Your task to perform on an android device: open app "Upside-Cash back on gas & food" (install if not already installed) and enter user name: "transatlantic@gmail.com" and password: "experiences" Image 0: 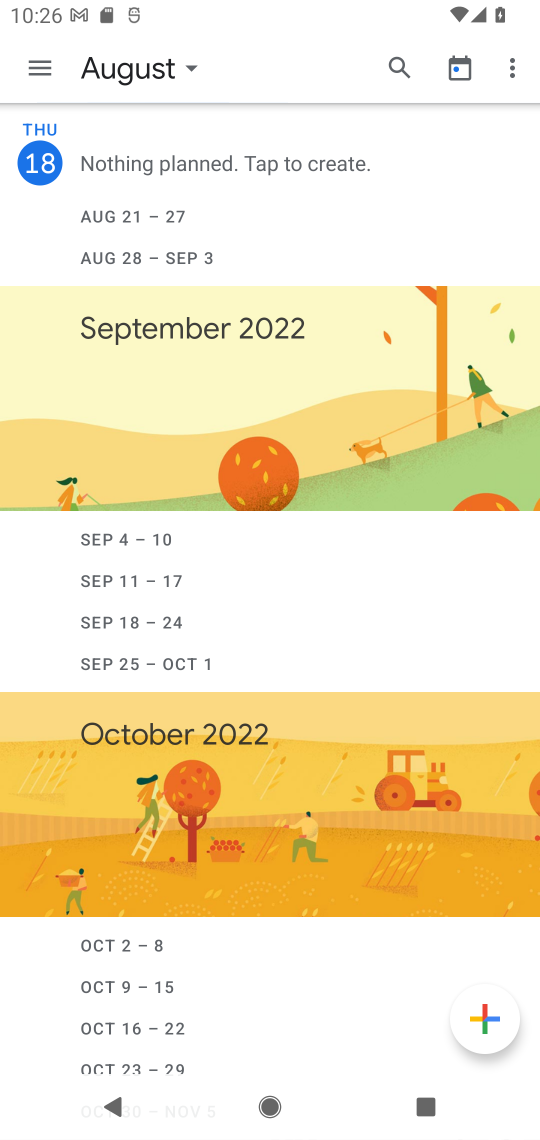
Step 0: press home button
Your task to perform on an android device: open app "Upside-Cash back on gas & food" (install if not already installed) and enter user name: "transatlantic@gmail.com" and password: "experiences" Image 1: 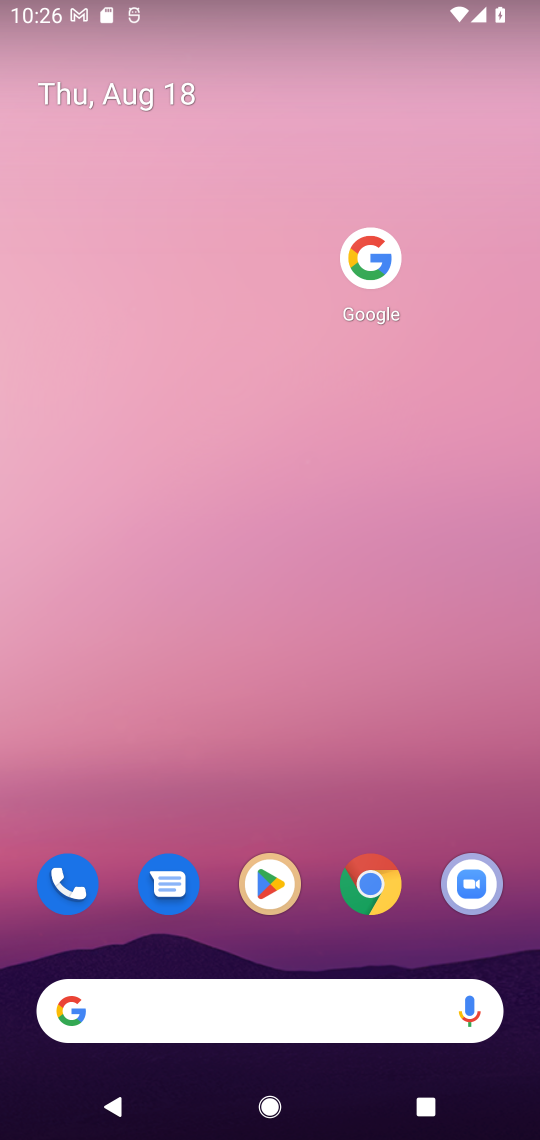
Step 1: click (291, 895)
Your task to perform on an android device: open app "Upside-Cash back on gas & food" (install if not already installed) and enter user name: "transatlantic@gmail.com" and password: "experiences" Image 2: 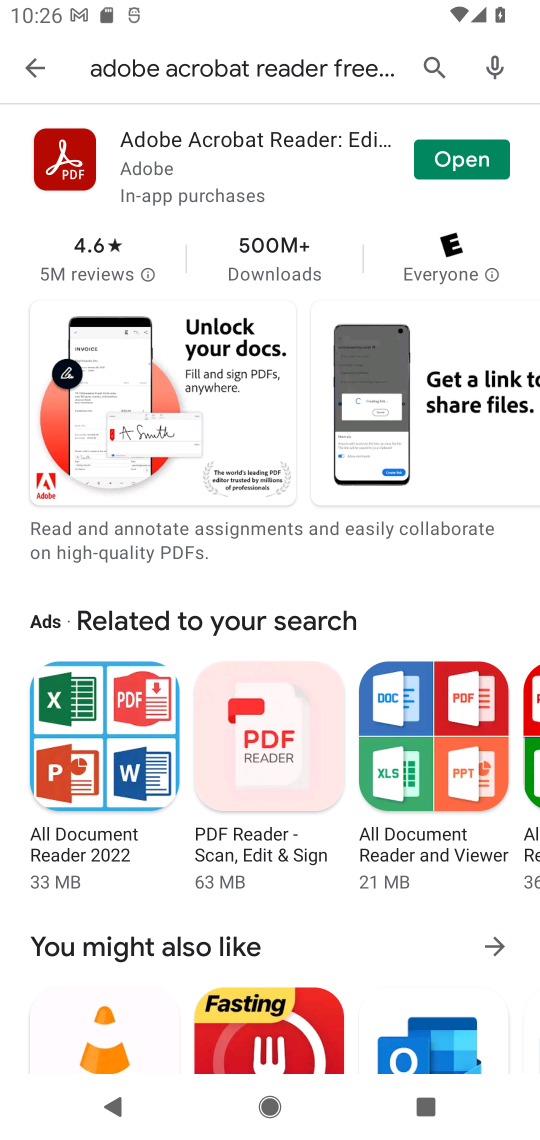
Step 2: click (436, 66)
Your task to perform on an android device: open app "Upside-Cash back on gas & food" (install if not already installed) and enter user name: "transatlantic@gmail.com" and password: "experiences" Image 3: 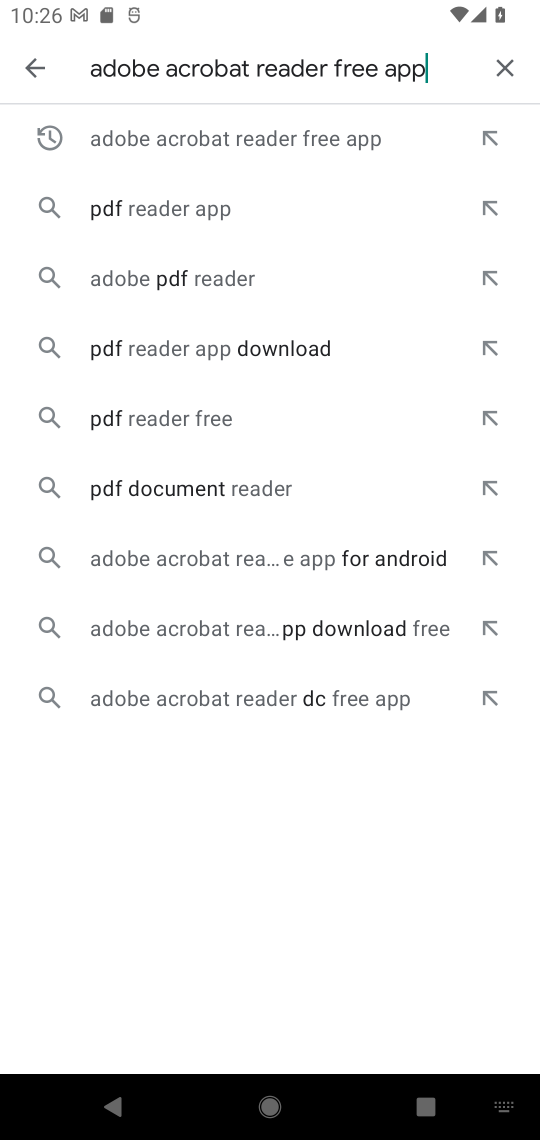
Step 3: click (499, 66)
Your task to perform on an android device: open app "Upside-Cash back on gas & food" (install if not already installed) and enter user name: "transatlantic@gmail.com" and password: "experiences" Image 4: 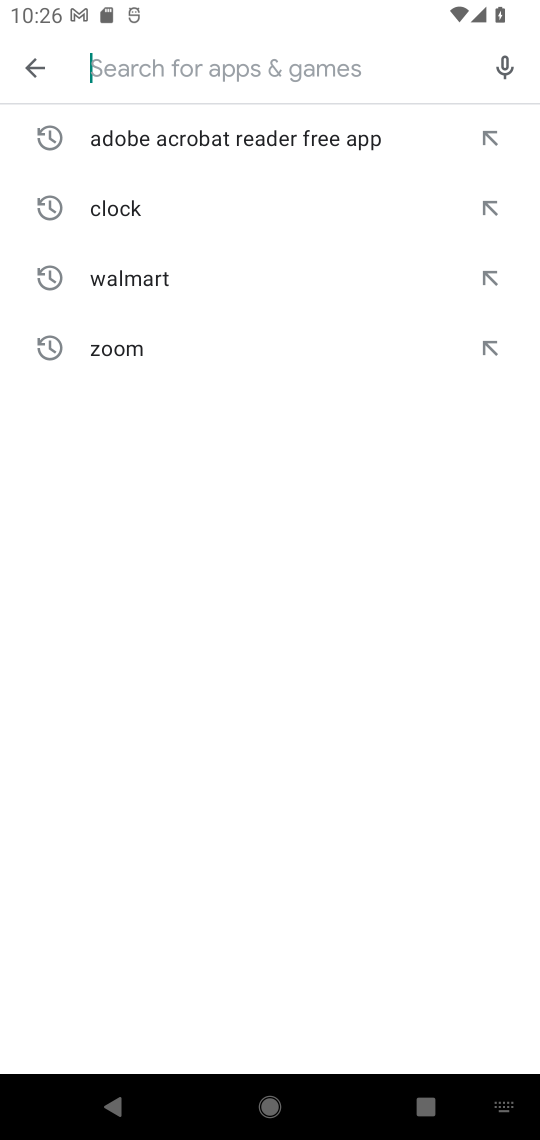
Step 4: type "spotift"
Your task to perform on an android device: open app "Upside-Cash back on gas & food" (install if not already installed) and enter user name: "transatlantic@gmail.com" and password: "experiences" Image 5: 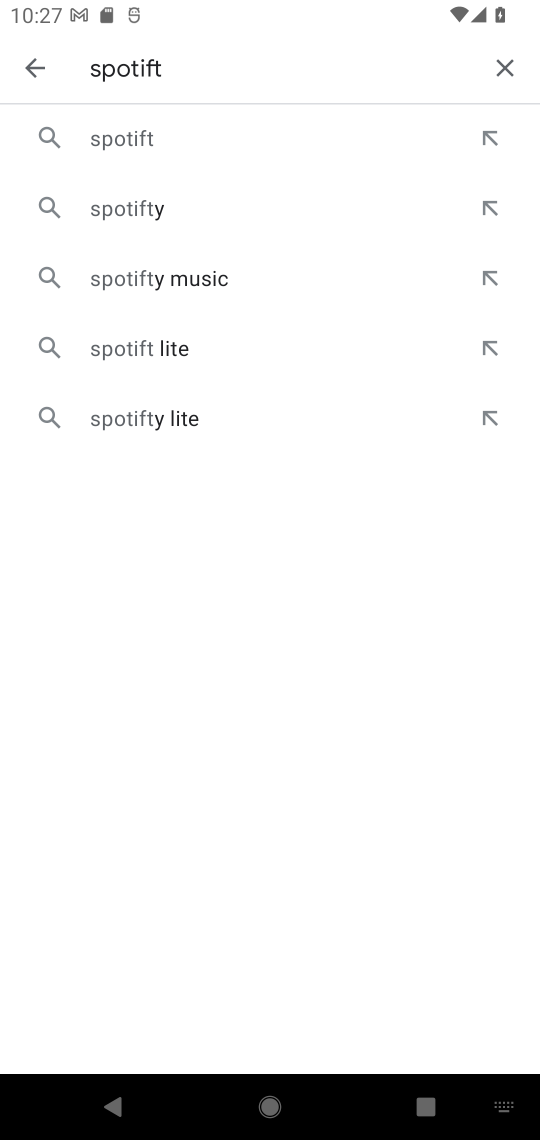
Step 5: click (159, 163)
Your task to perform on an android device: open app "Upside-Cash back on gas & food" (install if not already installed) and enter user name: "transatlantic@gmail.com" and password: "experiences" Image 6: 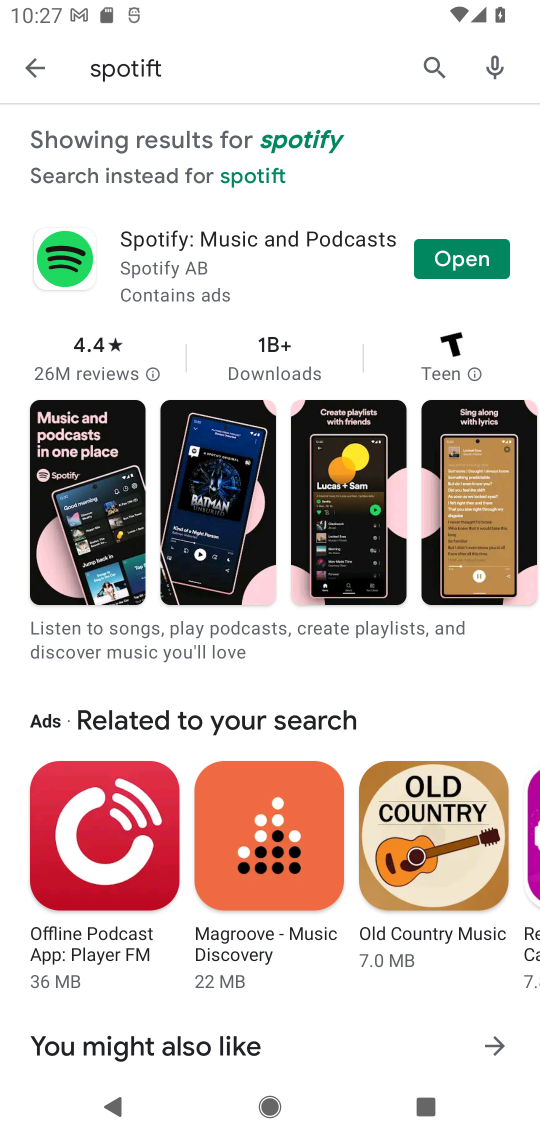
Step 6: click (179, 253)
Your task to perform on an android device: open app "Upside-Cash back on gas & food" (install if not already installed) and enter user name: "transatlantic@gmail.com" and password: "experiences" Image 7: 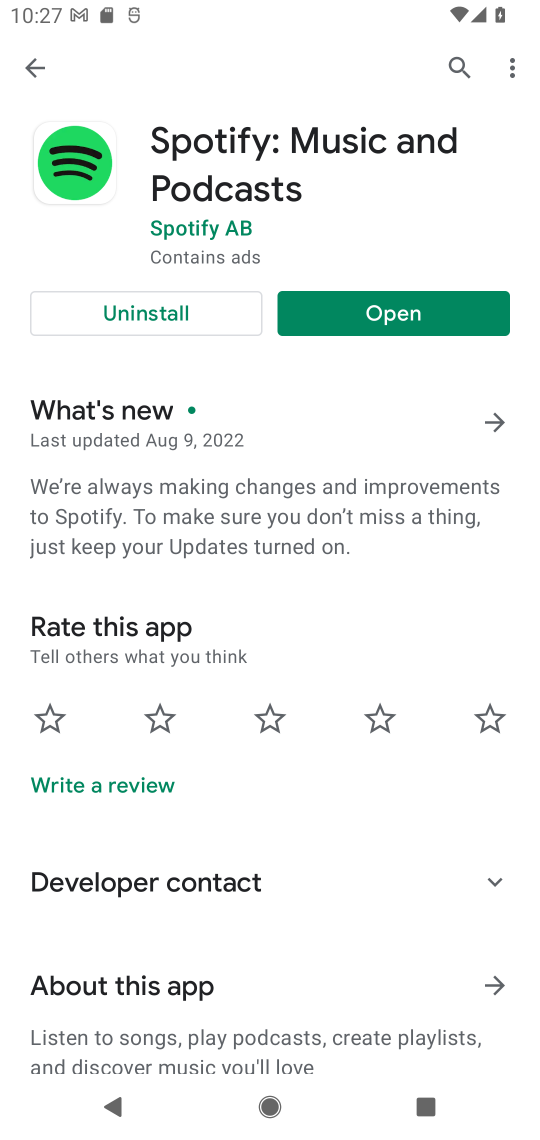
Step 7: click (329, 310)
Your task to perform on an android device: open app "Upside-Cash back on gas & food" (install if not already installed) and enter user name: "transatlantic@gmail.com" and password: "experiences" Image 8: 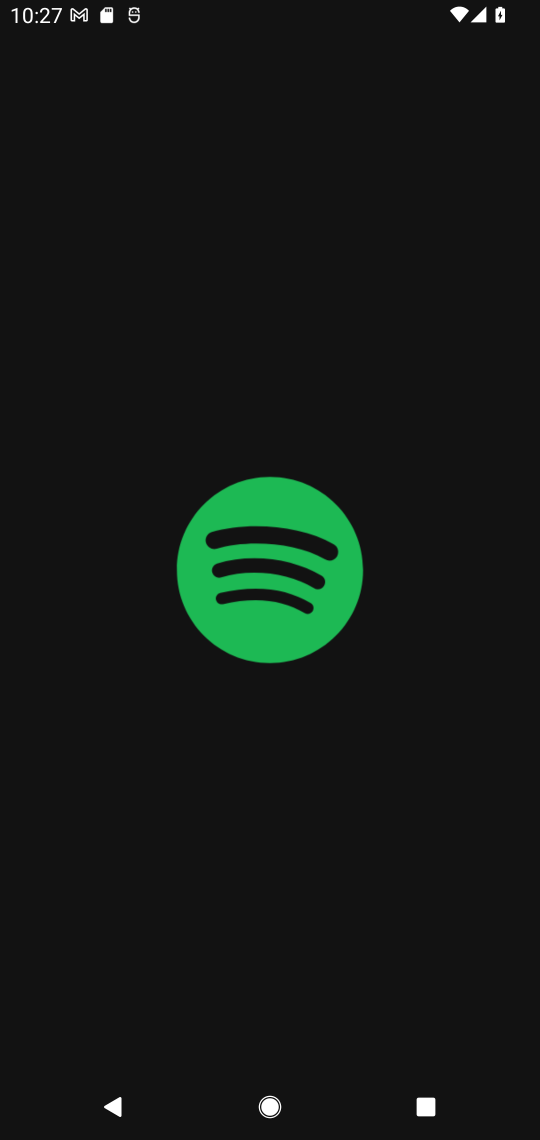
Step 8: task complete